Your task to perform on an android device: change alarm snooze length Image 0: 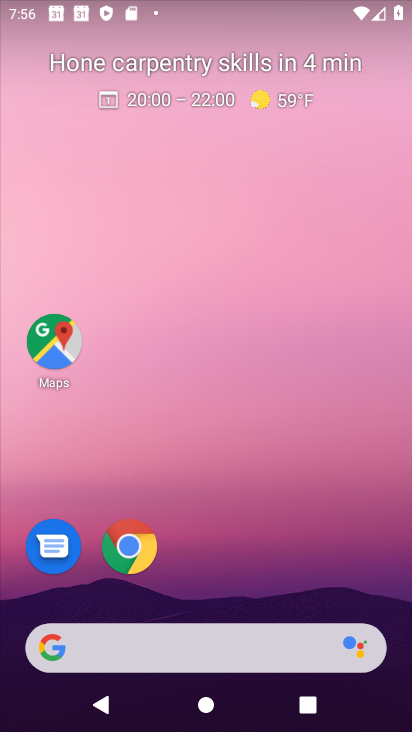
Step 0: drag from (351, 526) to (288, 164)
Your task to perform on an android device: change alarm snooze length Image 1: 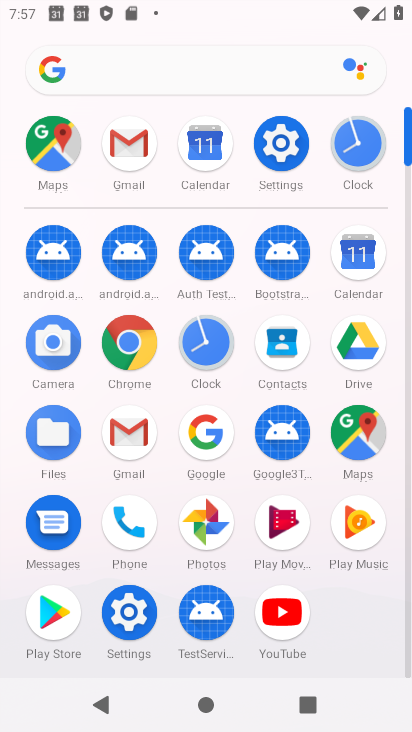
Step 1: click (370, 154)
Your task to perform on an android device: change alarm snooze length Image 2: 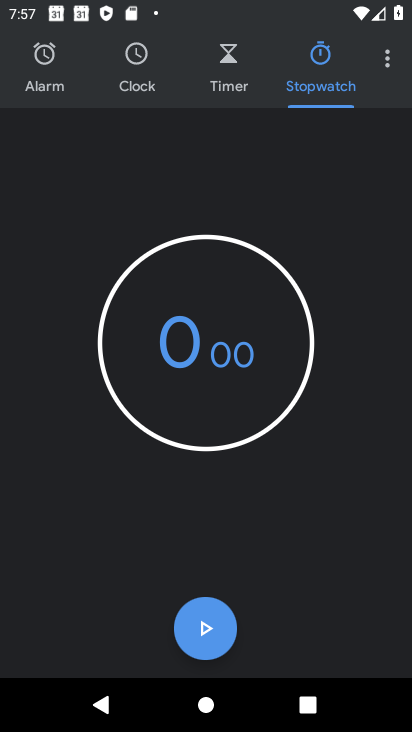
Step 2: click (389, 68)
Your task to perform on an android device: change alarm snooze length Image 3: 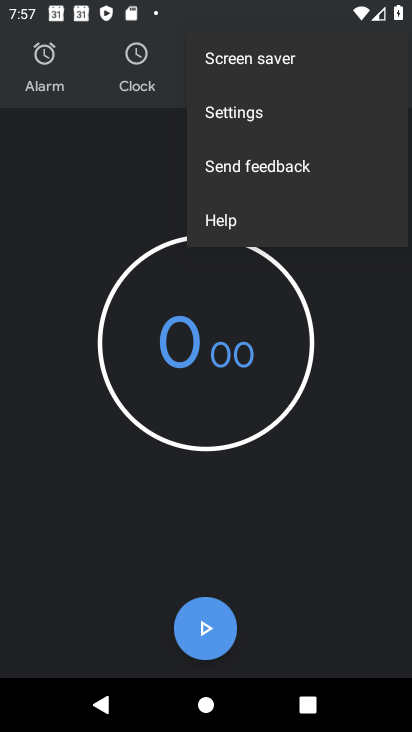
Step 3: click (254, 124)
Your task to perform on an android device: change alarm snooze length Image 4: 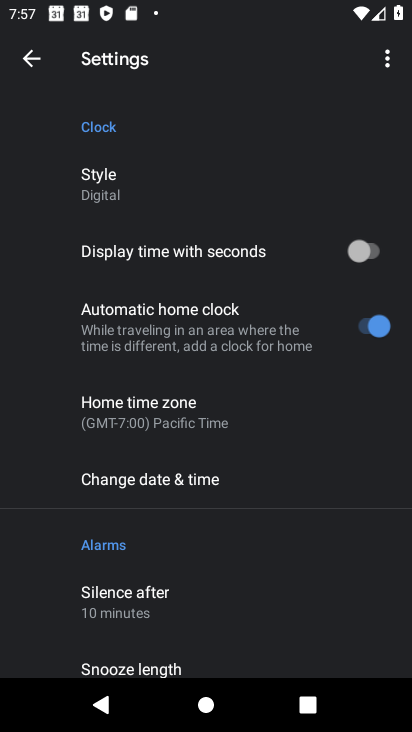
Step 4: drag from (257, 510) to (246, 291)
Your task to perform on an android device: change alarm snooze length Image 5: 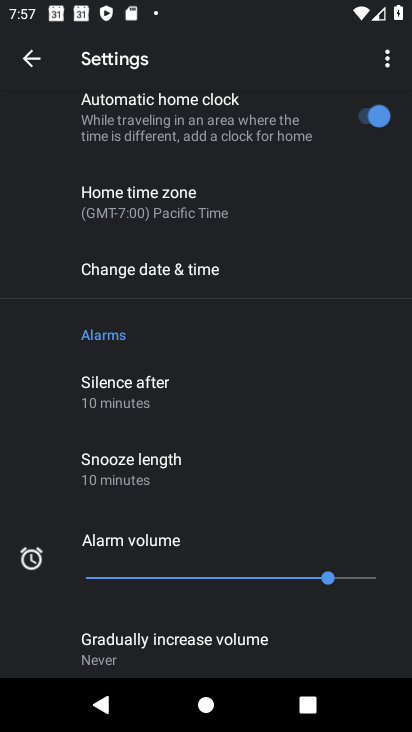
Step 5: click (95, 462)
Your task to perform on an android device: change alarm snooze length Image 6: 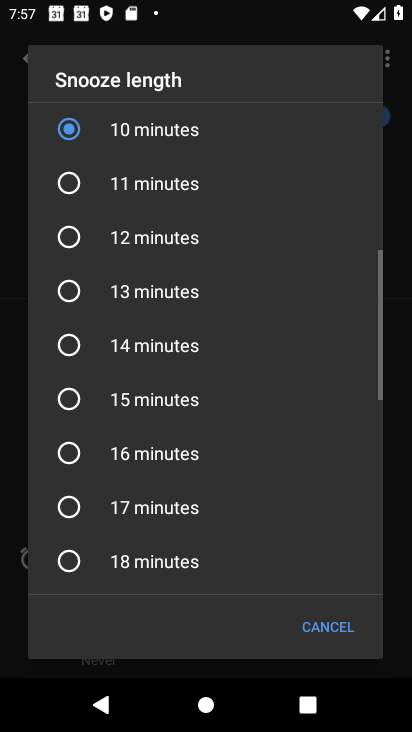
Step 6: click (148, 556)
Your task to perform on an android device: change alarm snooze length Image 7: 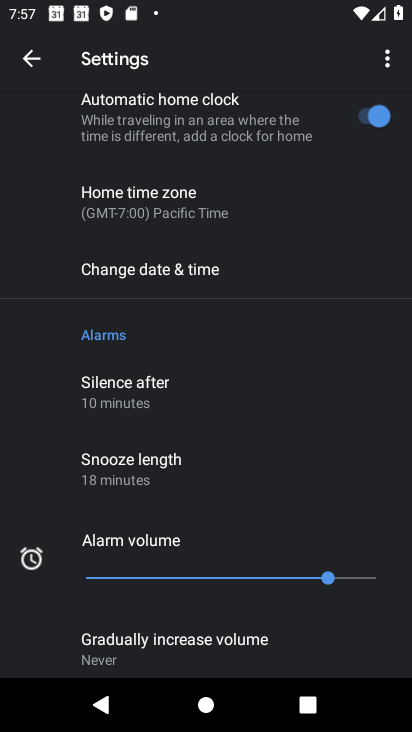
Step 7: task complete